Your task to perform on an android device: What is the news today? Image 0: 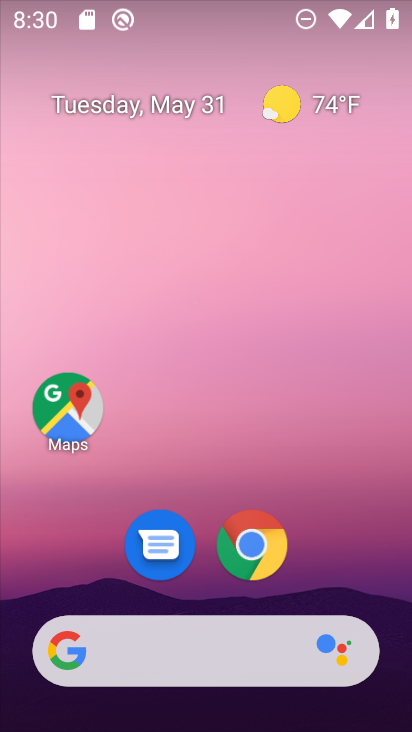
Step 0: drag from (371, 565) to (237, 5)
Your task to perform on an android device: What is the news today? Image 1: 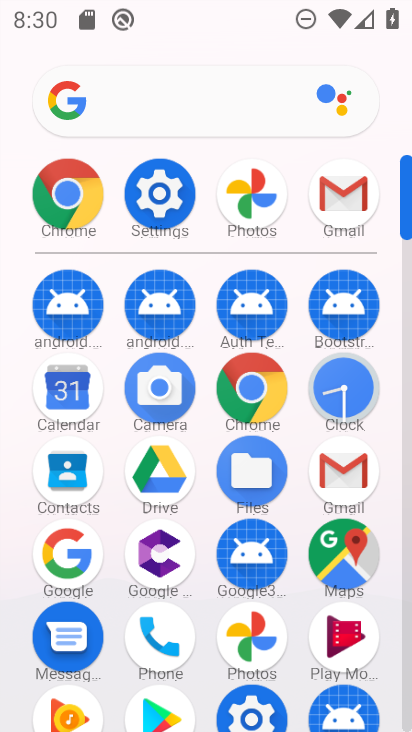
Step 1: drag from (6, 609) to (27, 225)
Your task to perform on an android device: What is the news today? Image 2: 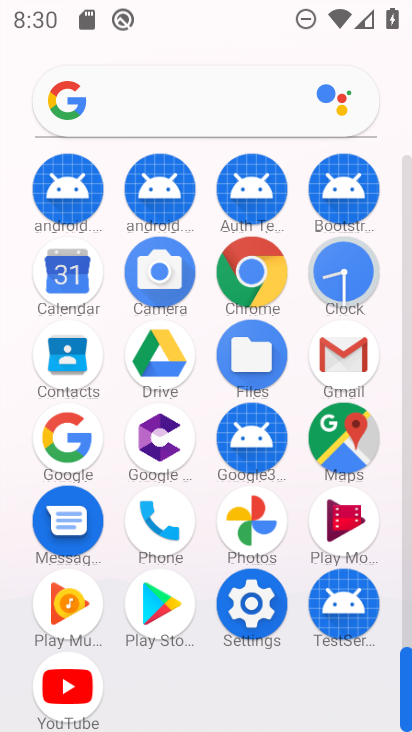
Step 2: drag from (13, 569) to (13, 199)
Your task to perform on an android device: What is the news today? Image 3: 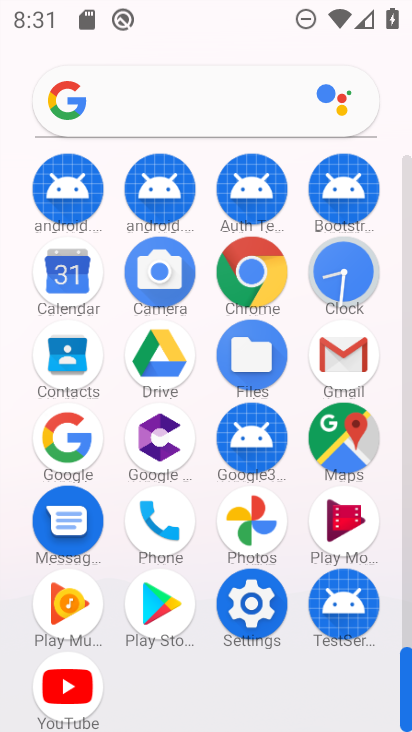
Step 3: click (254, 266)
Your task to perform on an android device: What is the news today? Image 4: 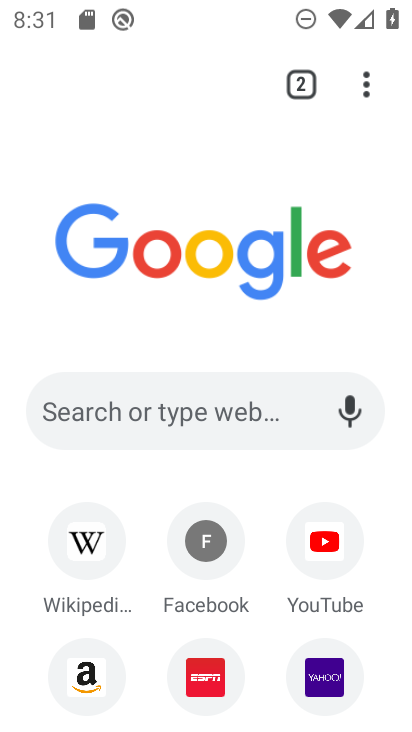
Step 4: click (55, 399)
Your task to perform on an android device: What is the news today? Image 5: 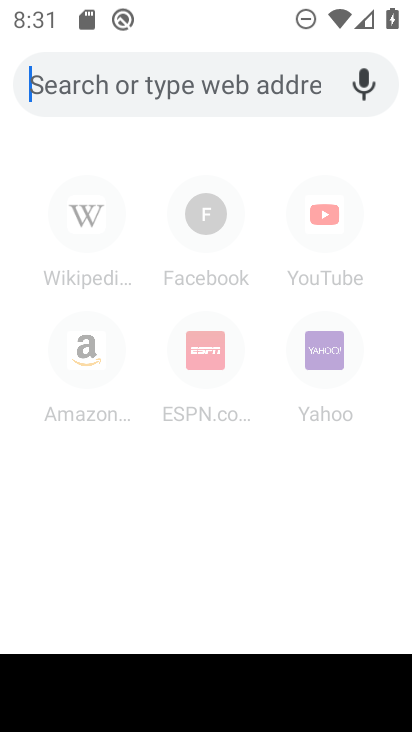
Step 5: type "What is the news today?"
Your task to perform on an android device: What is the news today? Image 6: 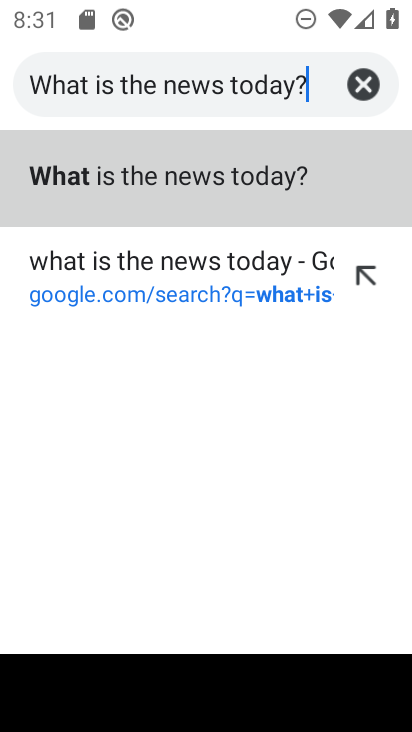
Step 6: type ""
Your task to perform on an android device: What is the news today? Image 7: 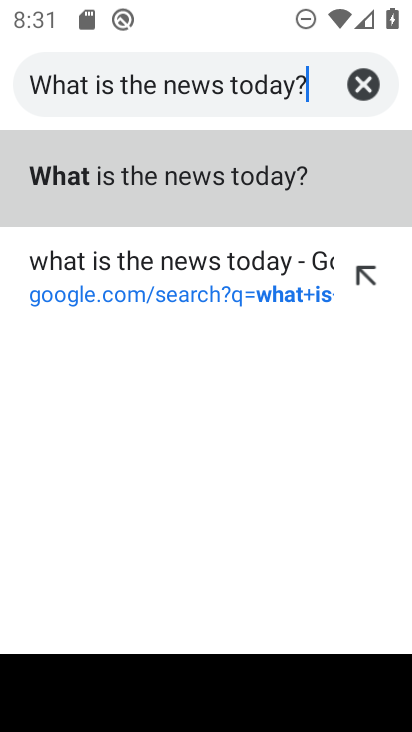
Step 7: click (164, 198)
Your task to perform on an android device: What is the news today? Image 8: 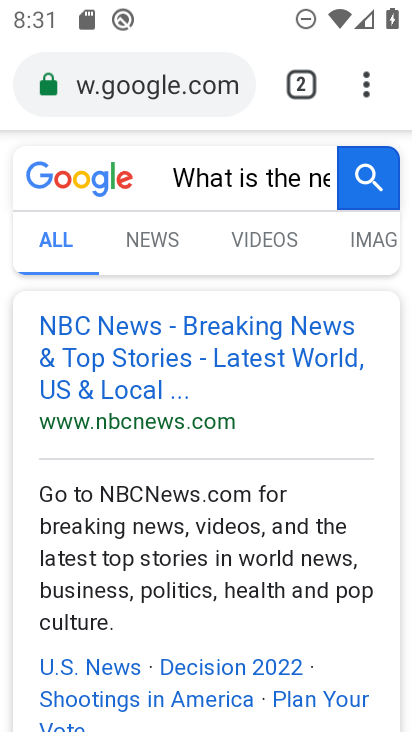
Step 8: click (160, 240)
Your task to perform on an android device: What is the news today? Image 9: 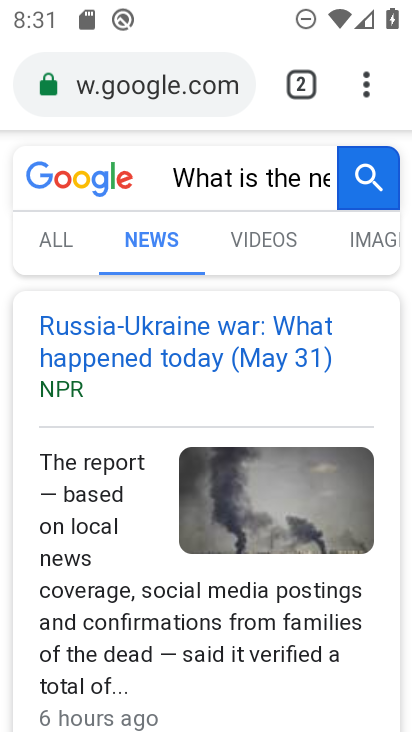
Step 9: task complete